Your task to perform on an android device: Search for "bose soundsport free" on walmart.com, select the first entry, add it to the cart, then select checkout. Image 0: 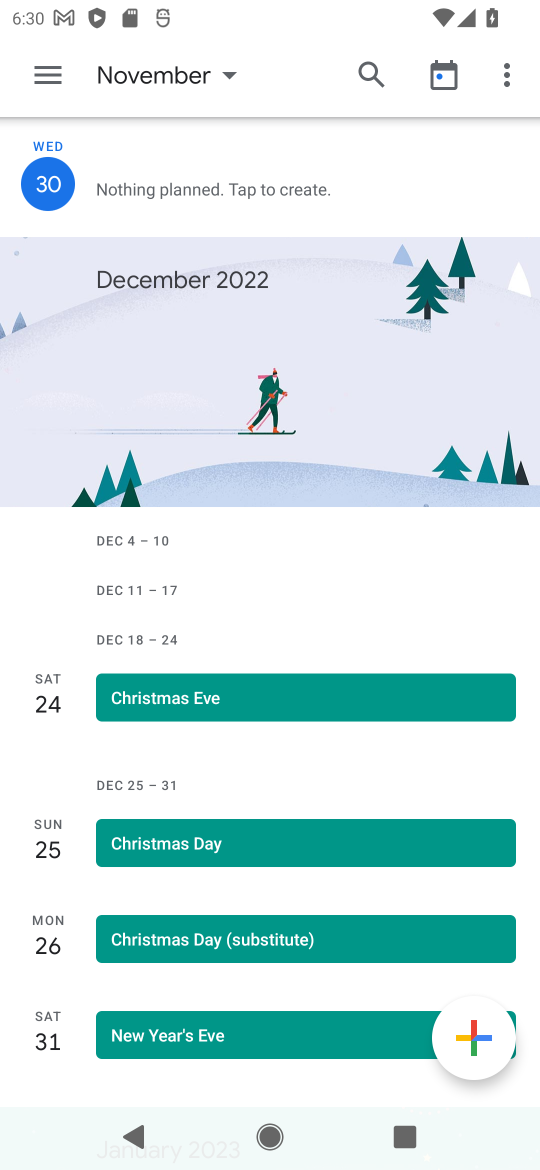
Step 0: press home button
Your task to perform on an android device: Search for "bose soundsport free" on walmart.com, select the first entry, add it to the cart, then select checkout. Image 1: 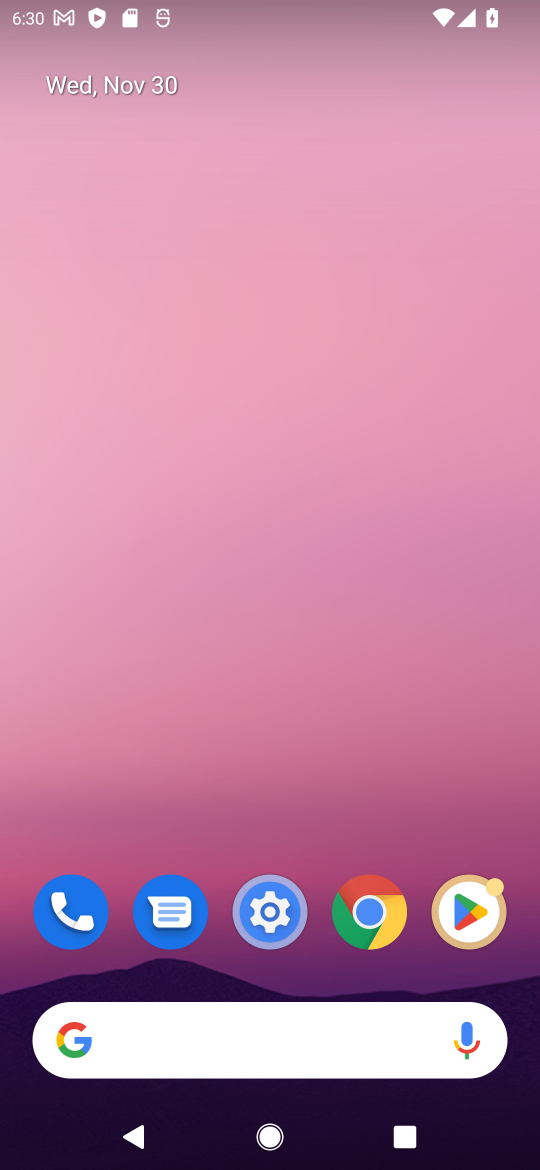
Step 1: click (248, 1031)
Your task to perform on an android device: Search for "bose soundsport free" on walmart.com, select the first entry, add it to the cart, then select checkout. Image 2: 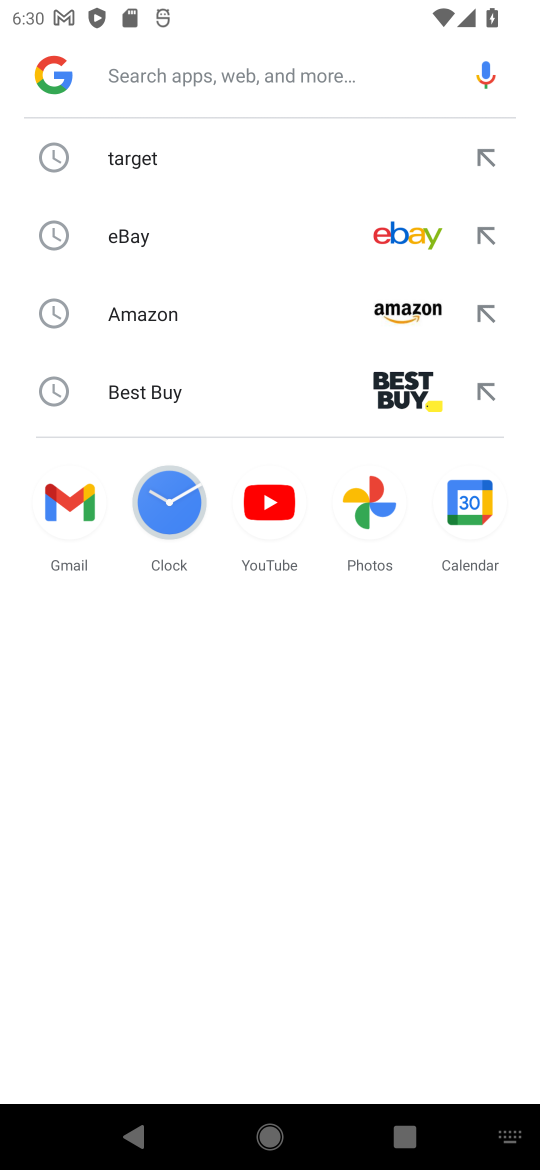
Step 2: type "walmart.com"
Your task to perform on an android device: Search for "bose soundsport free" on walmart.com, select the first entry, add it to the cart, then select checkout. Image 3: 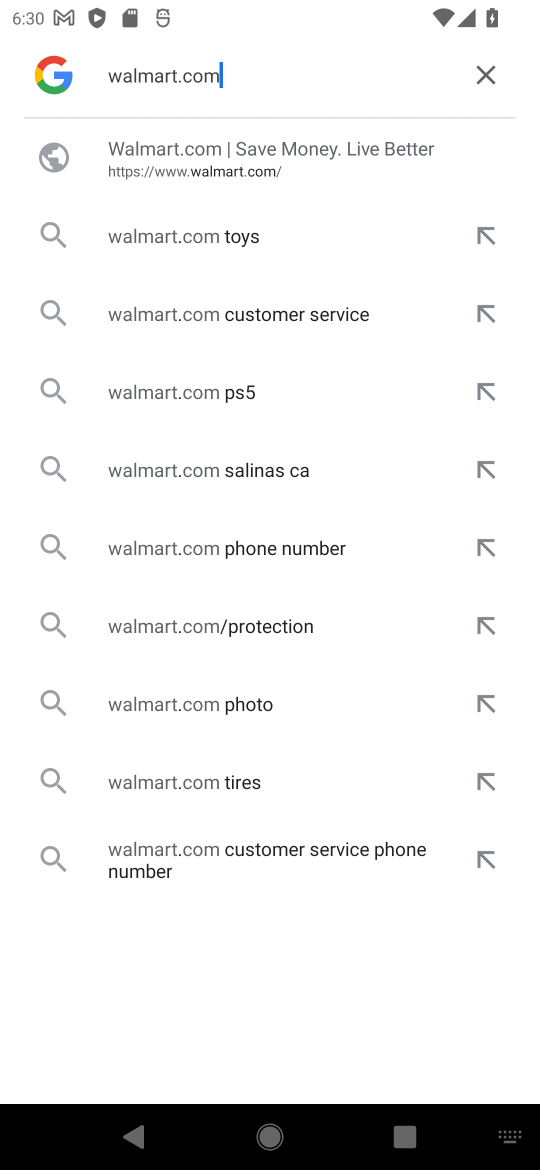
Step 3: click (230, 161)
Your task to perform on an android device: Search for "bose soundsport free" on walmart.com, select the first entry, add it to the cart, then select checkout. Image 4: 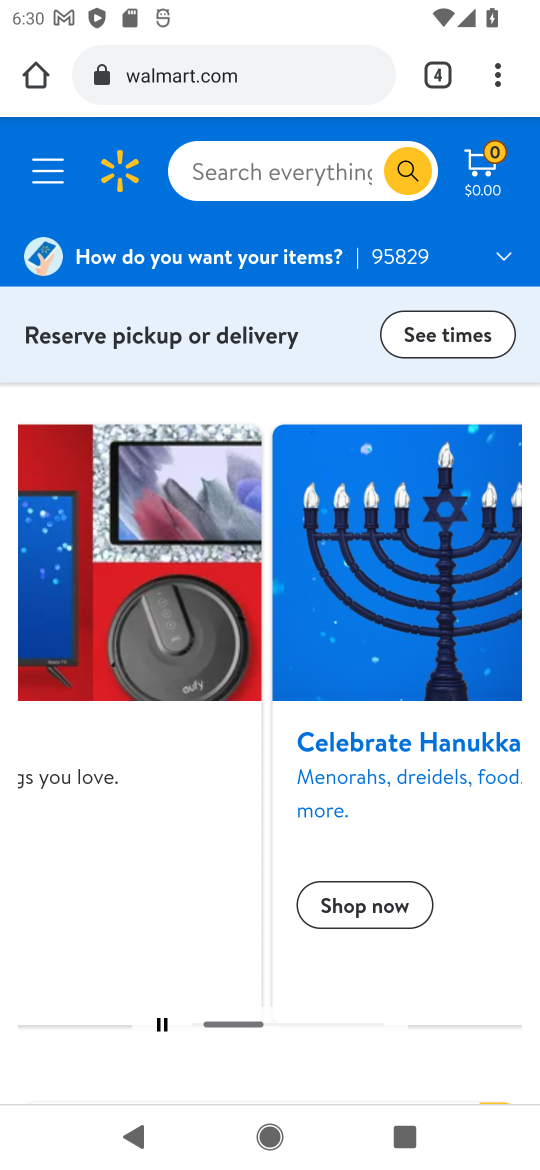
Step 4: click (283, 174)
Your task to perform on an android device: Search for "bose soundsport free" on walmart.com, select the first entry, add it to the cart, then select checkout. Image 5: 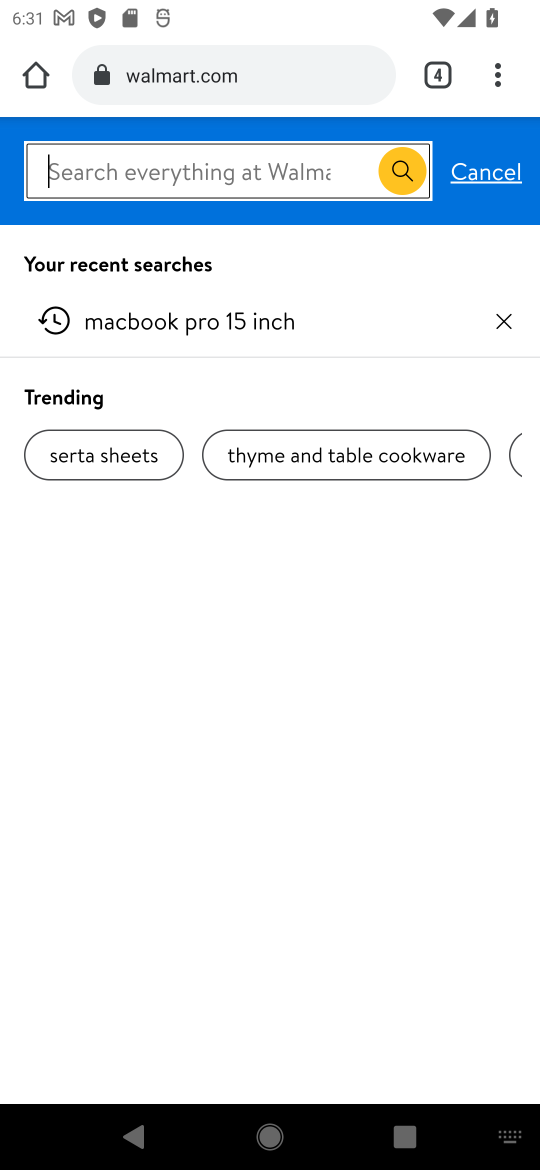
Step 5: type "bose soundsport free"
Your task to perform on an android device: Search for "bose soundsport free" on walmart.com, select the first entry, add it to the cart, then select checkout. Image 6: 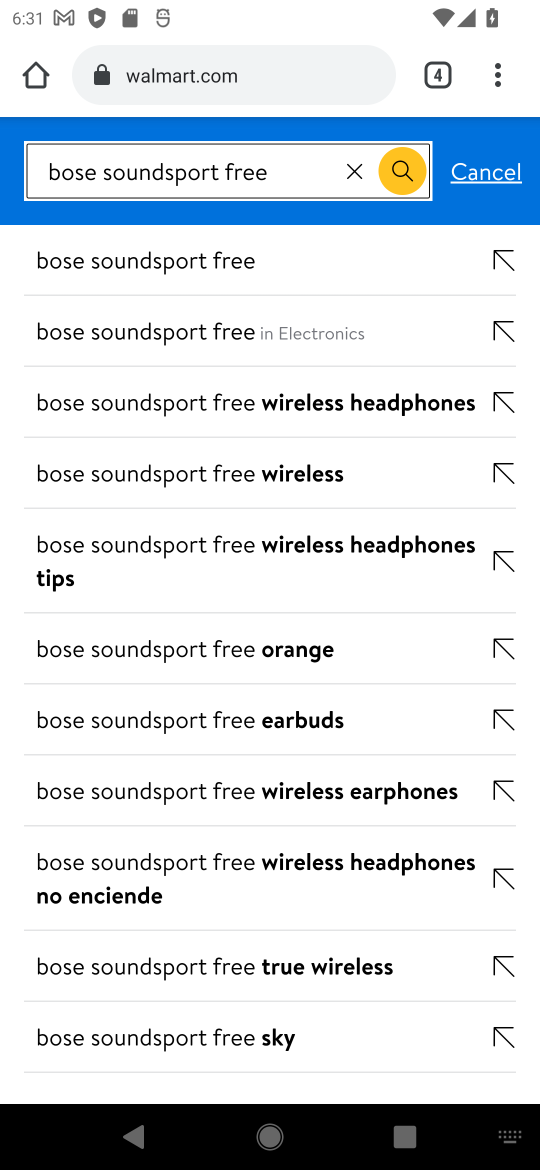
Step 6: click (189, 266)
Your task to perform on an android device: Search for "bose soundsport free" on walmart.com, select the first entry, add it to the cart, then select checkout. Image 7: 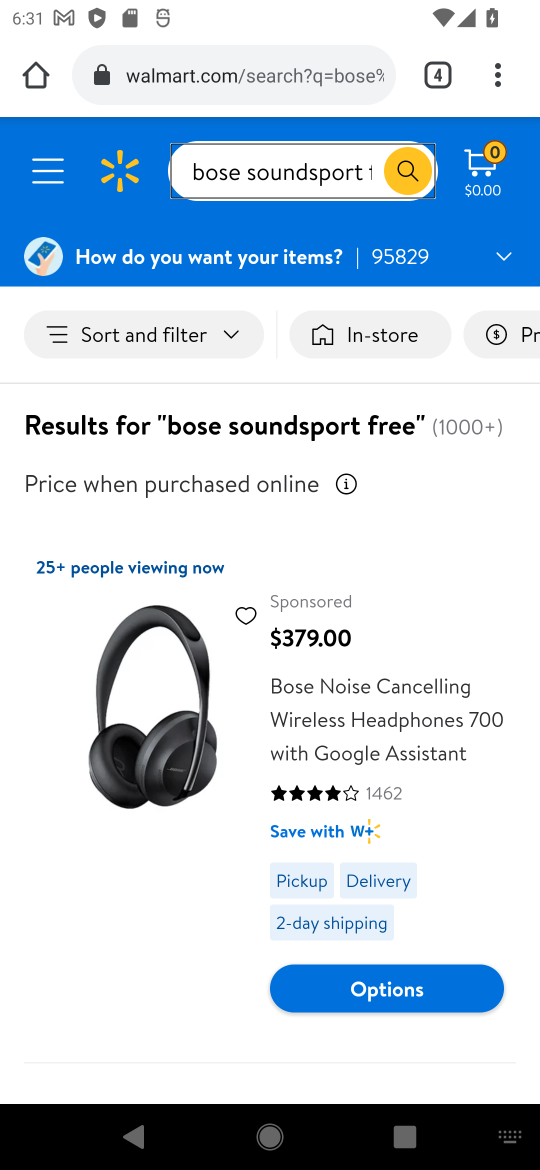
Step 7: click (385, 989)
Your task to perform on an android device: Search for "bose soundsport free" on walmart.com, select the first entry, add it to the cart, then select checkout. Image 8: 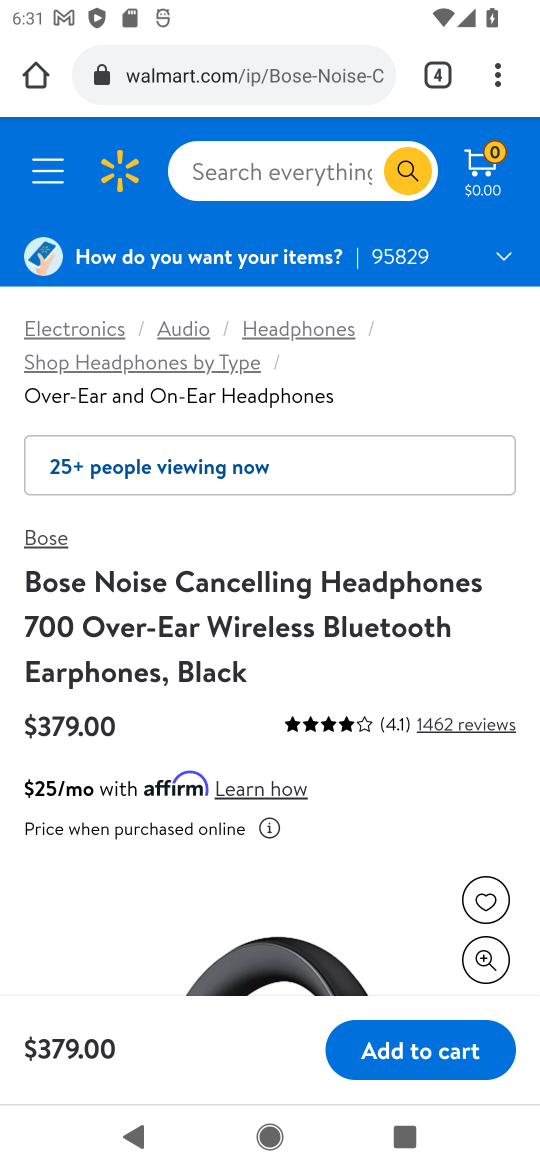
Step 8: click (401, 1054)
Your task to perform on an android device: Search for "bose soundsport free" on walmart.com, select the first entry, add it to the cart, then select checkout. Image 9: 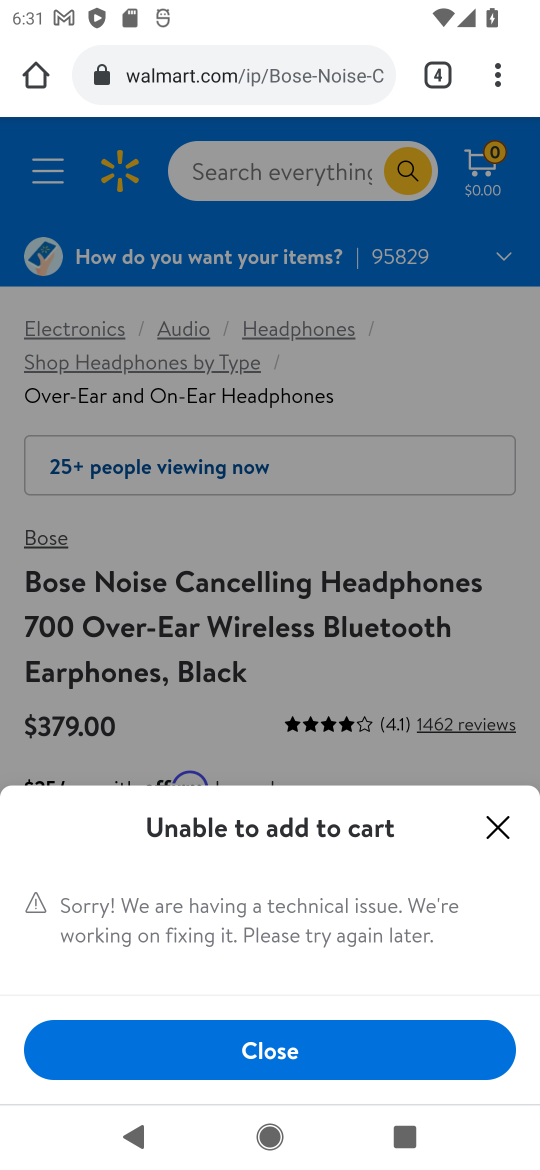
Step 9: task complete